Your task to perform on an android device: Check the news Image 0: 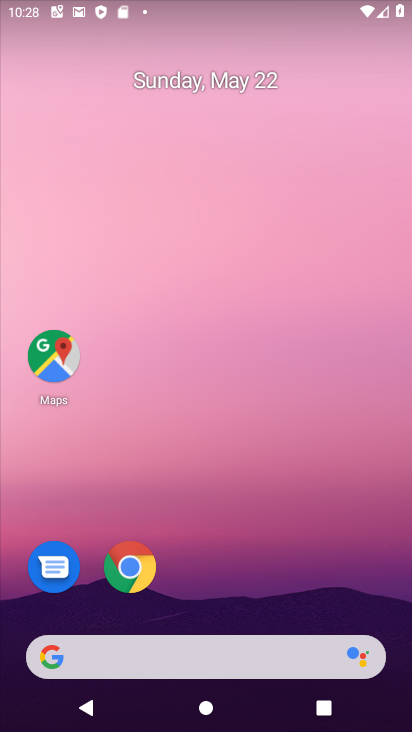
Step 0: drag from (241, 560) to (212, 2)
Your task to perform on an android device: Check the news Image 1: 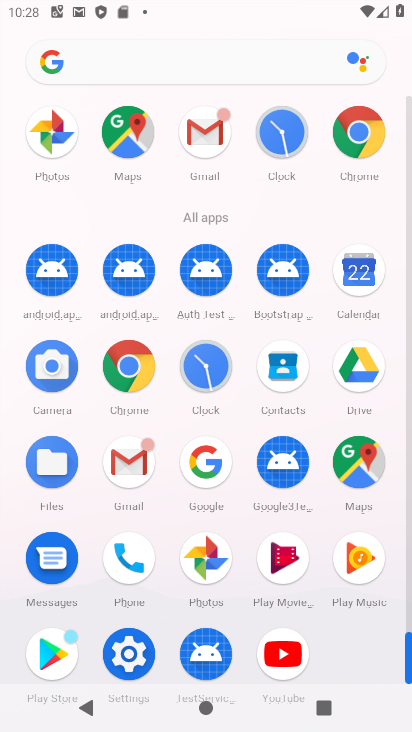
Step 1: click (127, 363)
Your task to perform on an android device: Check the news Image 2: 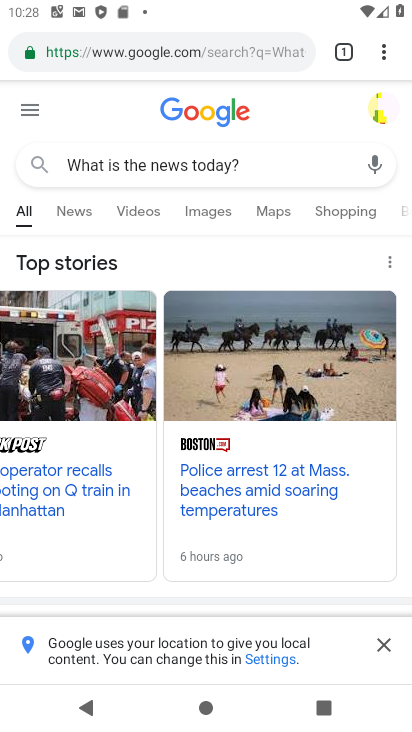
Step 2: click (172, 44)
Your task to perform on an android device: Check the news Image 3: 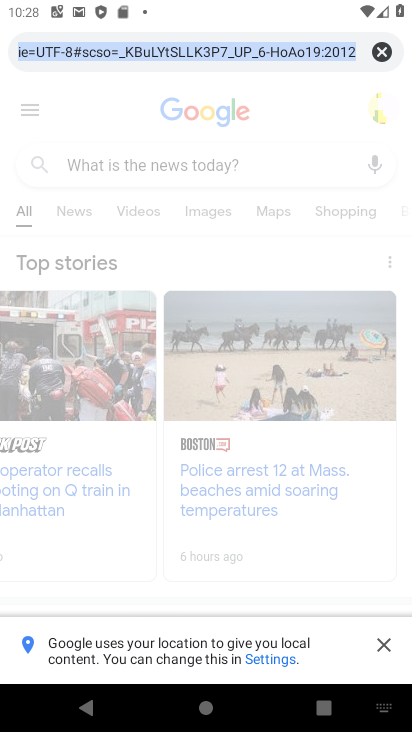
Step 3: click (379, 49)
Your task to perform on an android device: Check the news Image 4: 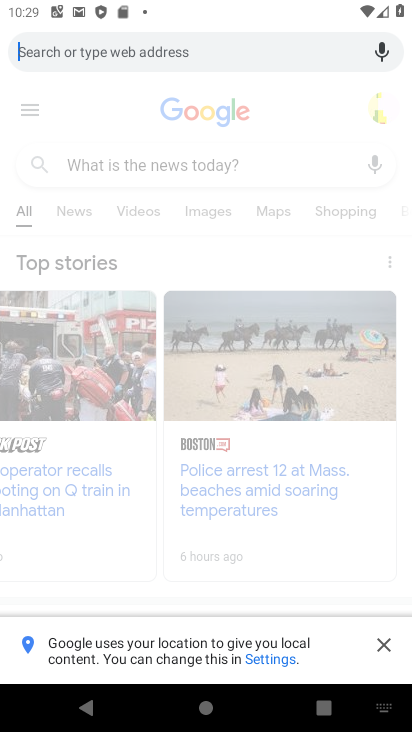
Step 4: type "Check the news"
Your task to perform on an android device: Check the news Image 5: 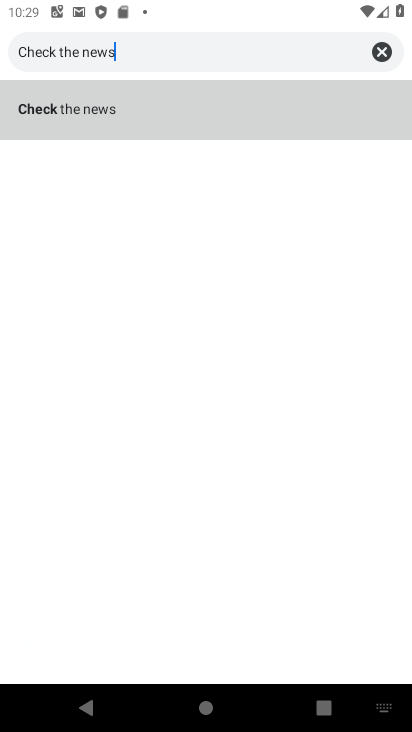
Step 5: type ""
Your task to perform on an android device: Check the news Image 6: 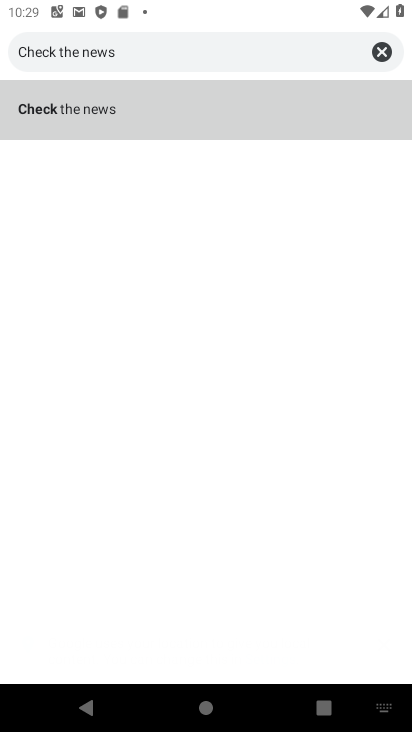
Step 6: click (124, 114)
Your task to perform on an android device: Check the news Image 7: 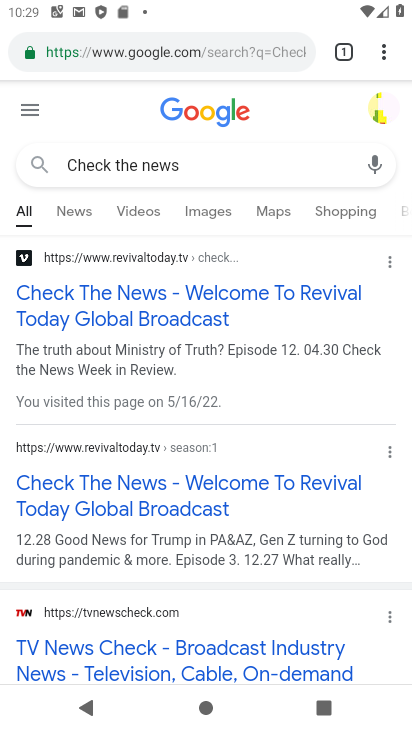
Step 7: click (79, 209)
Your task to perform on an android device: Check the news Image 8: 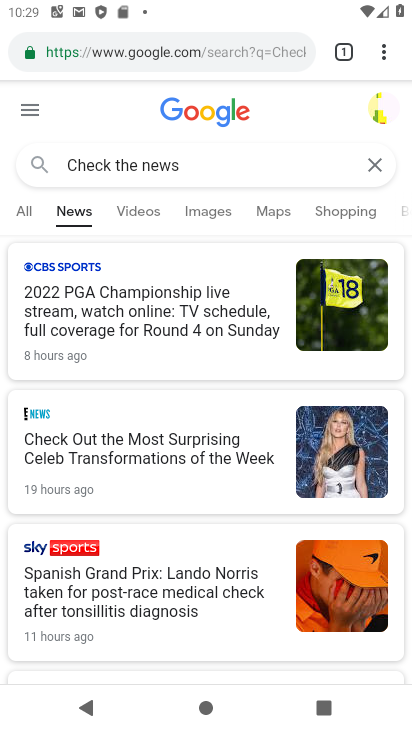
Step 8: task complete